Your task to perform on an android device: turn on javascript in the chrome app Image 0: 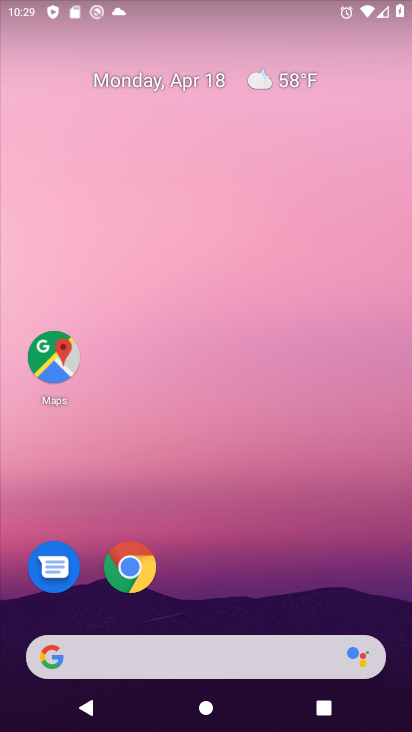
Step 0: click (128, 570)
Your task to perform on an android device: turn on javascript in the chrome app Image 1: 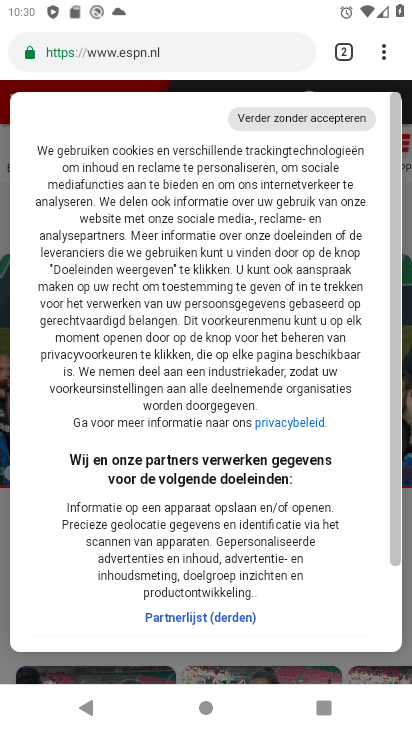
Step 1: click (384, 52)
Your task to perform on an android device: turn on javascript in the chrome app Image 2: 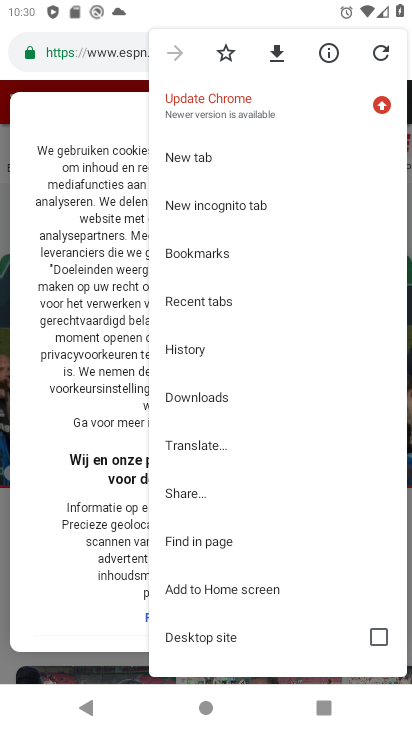
Step 2: drag from (215, 618) to (222, 141)
Your task to perform on an android device: turn on javascript in the chrome app Image 3: 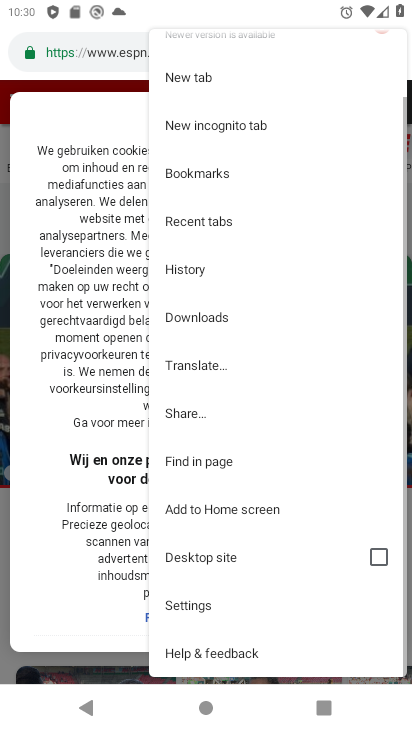
Step 3: click (194, 604)
Your task to perform on an android device: turn on javascript in the chrome app Image 4: 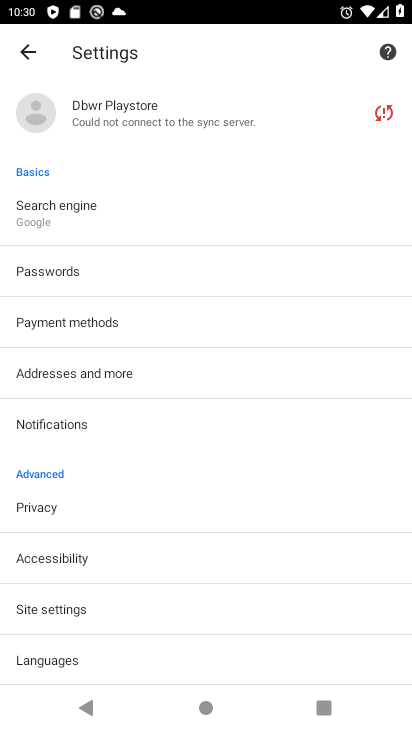
Step 4: drag from (149, 656) to (198, 168)
Your task to perform on an android device: turn on javascript in the chrome app Image 5: 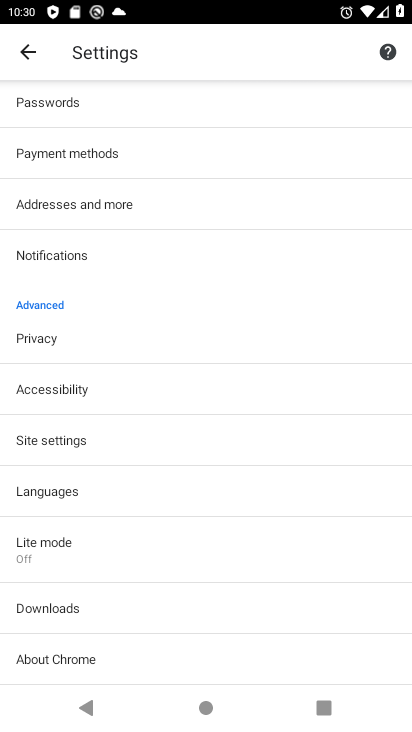
Step 5: click (55, 436)
Your task to perform on an android device: turn on javascript in the chrome app Image 6: 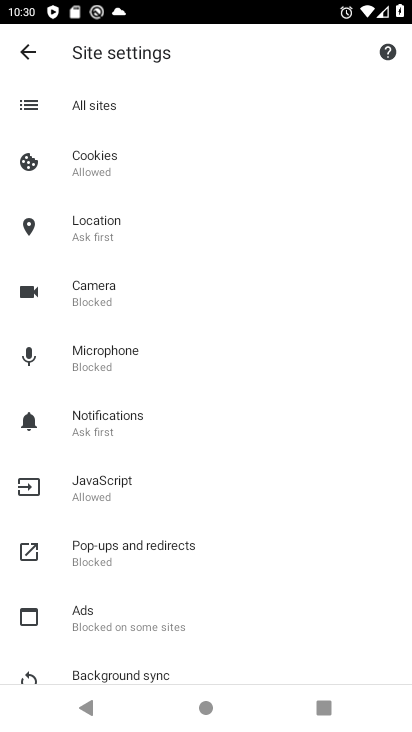
Step 6: click (104, 486)
Your task to perform on an android device: turn on javascript in the chrome app Image 7: 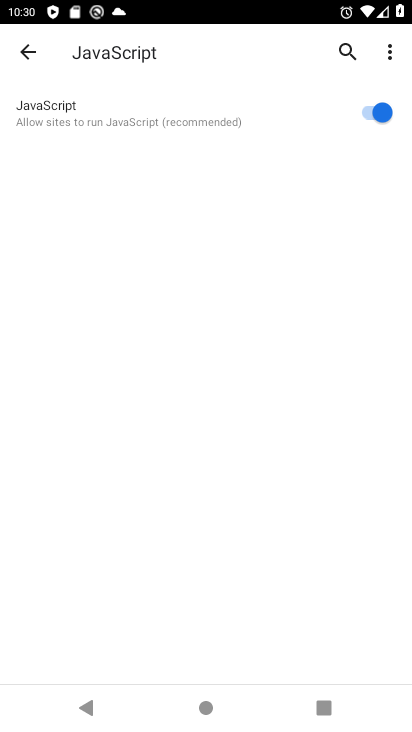
Step 7: task complete